Your task to perform on an android device: make emails show in primary in the gmail app Image 0: 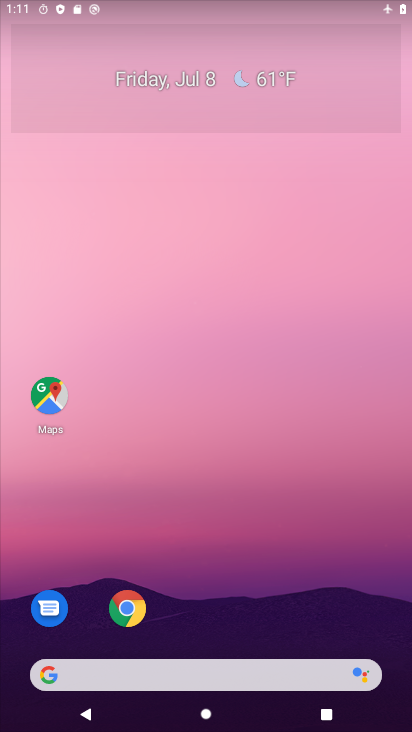
Step 0: drag from (212, 611) to (287, 94)
Your task to perform on an android device: make emails show in primary in the gmail app Image 1: 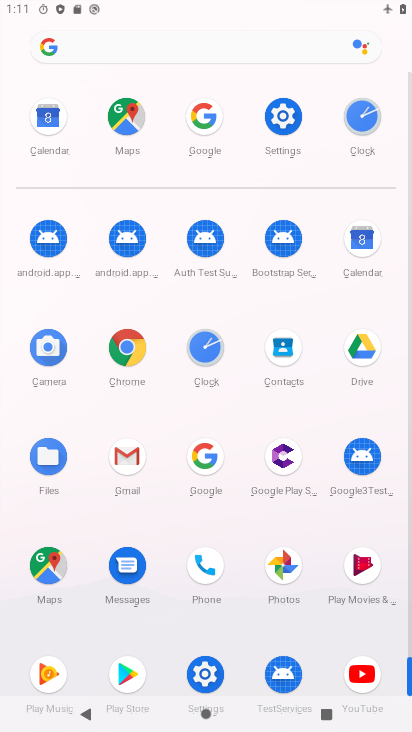
Step 1: click (130, 454)
Your task to perform on an android device: make emails show in primary in the gmail app Image 2: 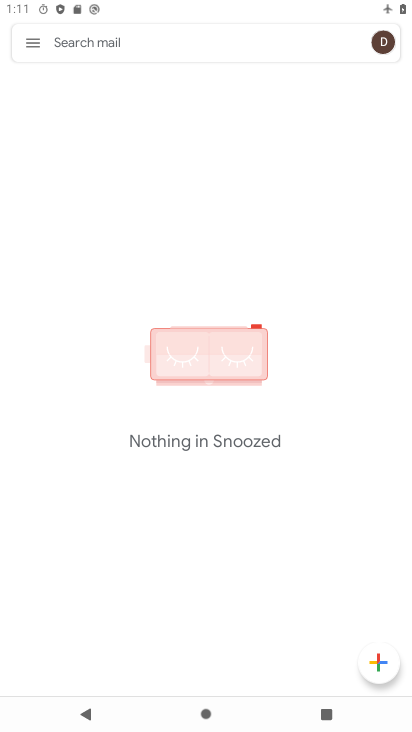
Step 2: click (28, 45)
Your task to perform on an android device: make emails show in primary in the gmail app Image 3: 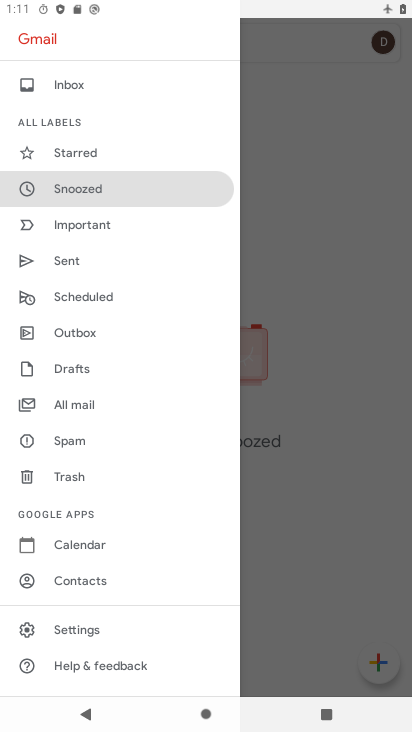
Step 3: click (53, 636)
Your task to perform on an android device: make emails show in primary in the gmail app Image 4: 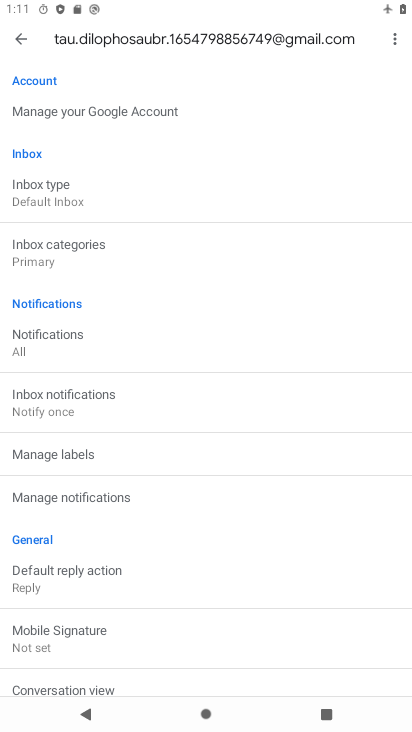
Step 4: task complete